Your task to perform on an android device: Check the settings for the Google Photos app Image 0: 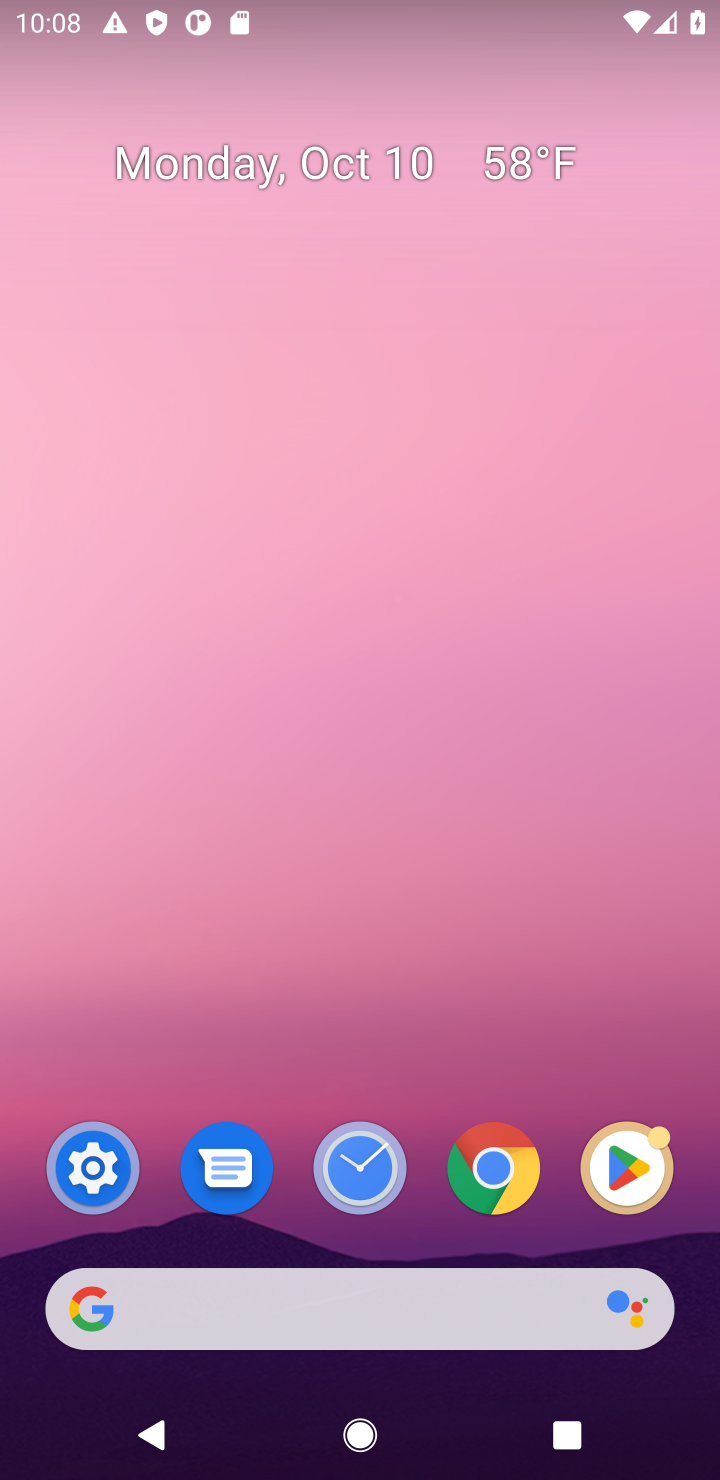
Step 0: drag from (359, 1067) to (474, 155)
Your task to perform on an android device: Check the settings for the Google Photos app Image 1: 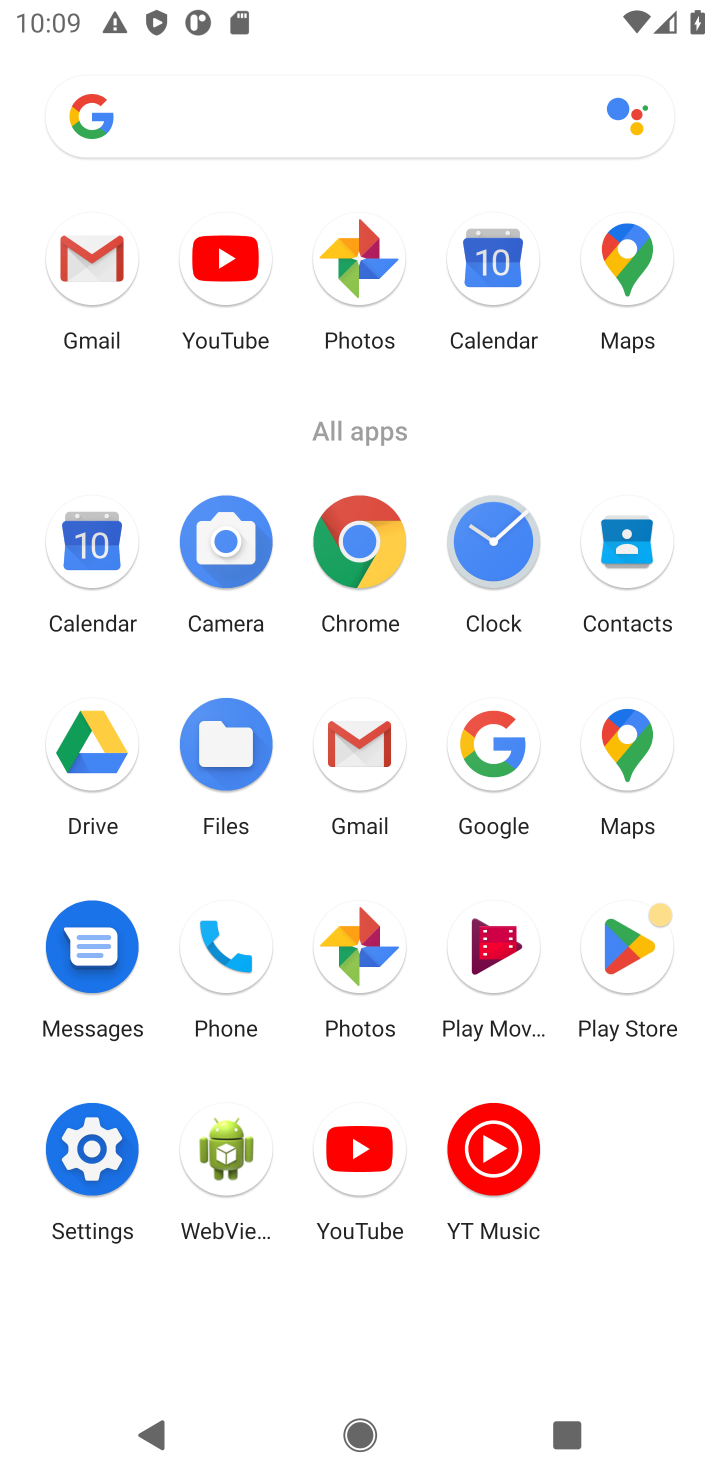
Step 1: click (344, 281)
Your task to perform on an android device: Check the settings for the Google Photos app Image 2: 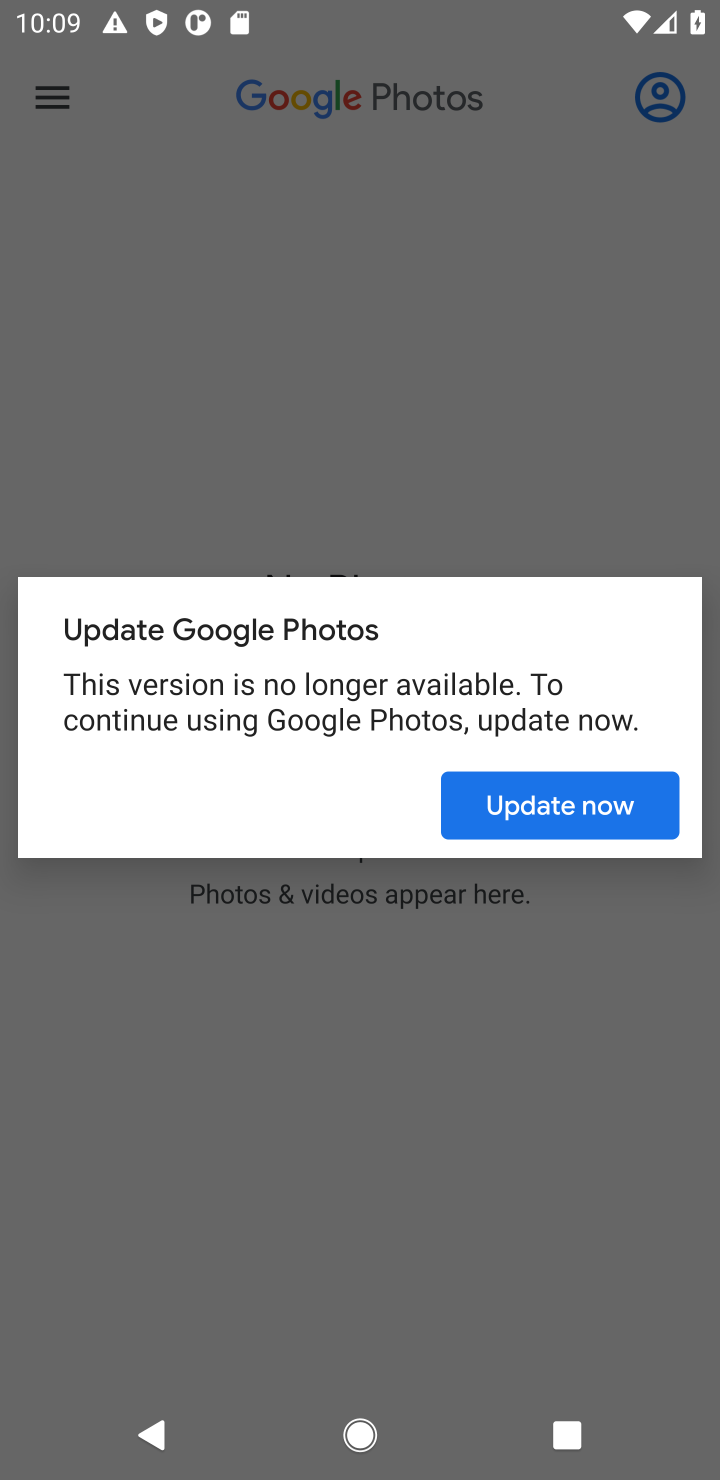
Step 2: click (269, 460)
Your task to perform on an android device: Check the settings for the Google Photos app Image 3: 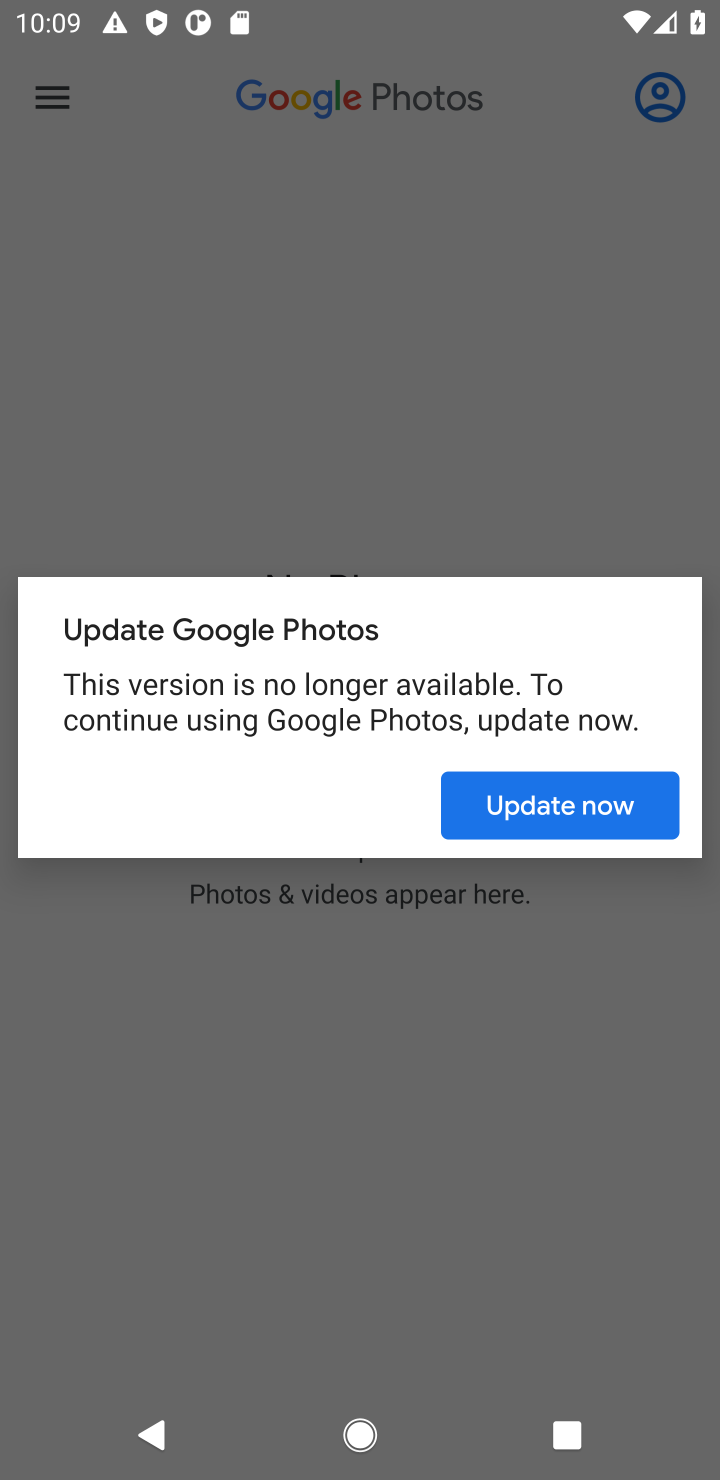
Step 3: click (616, 783)
Your task to perform on an android device: Check the settings for the Google Photos app Image 4: 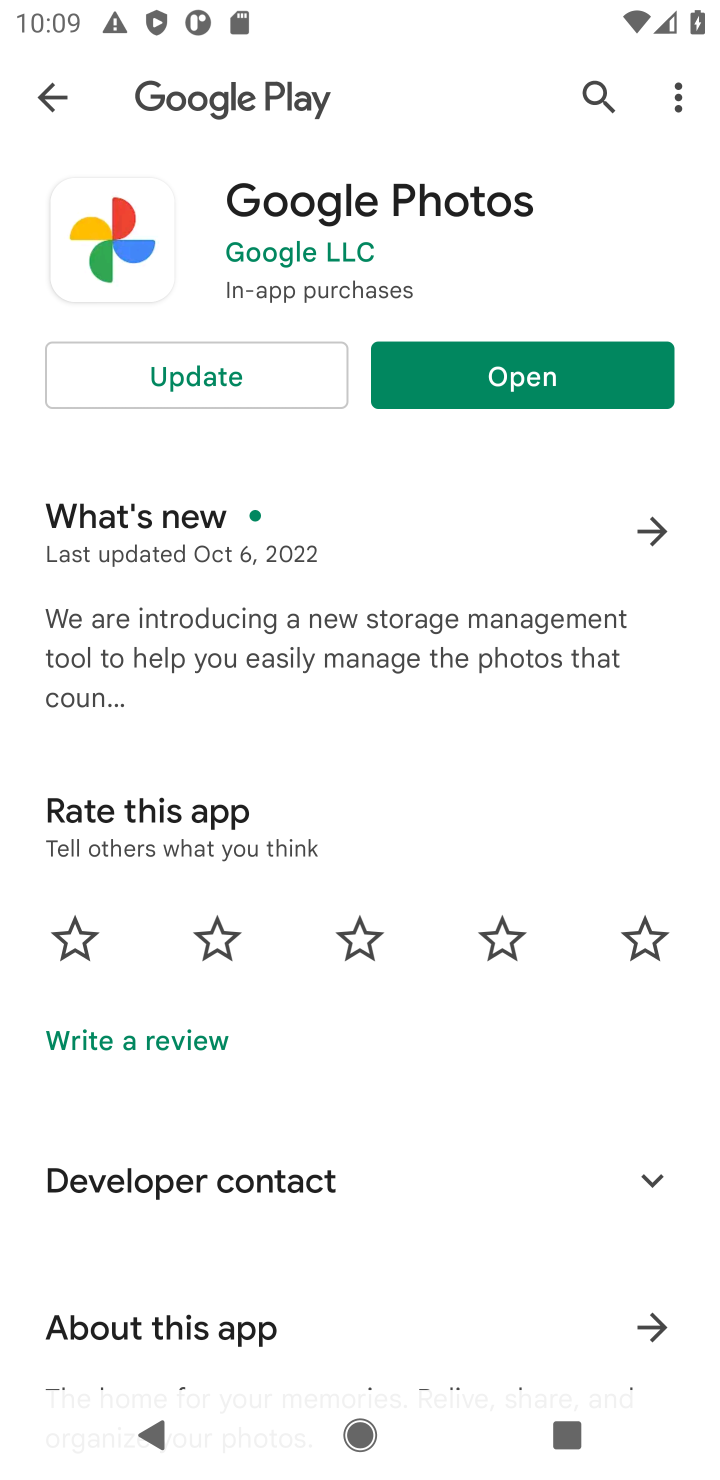
Step 4: click (590, 356)
Your task to perform on an android device: Check the settings for the Google Photos app Image 5: 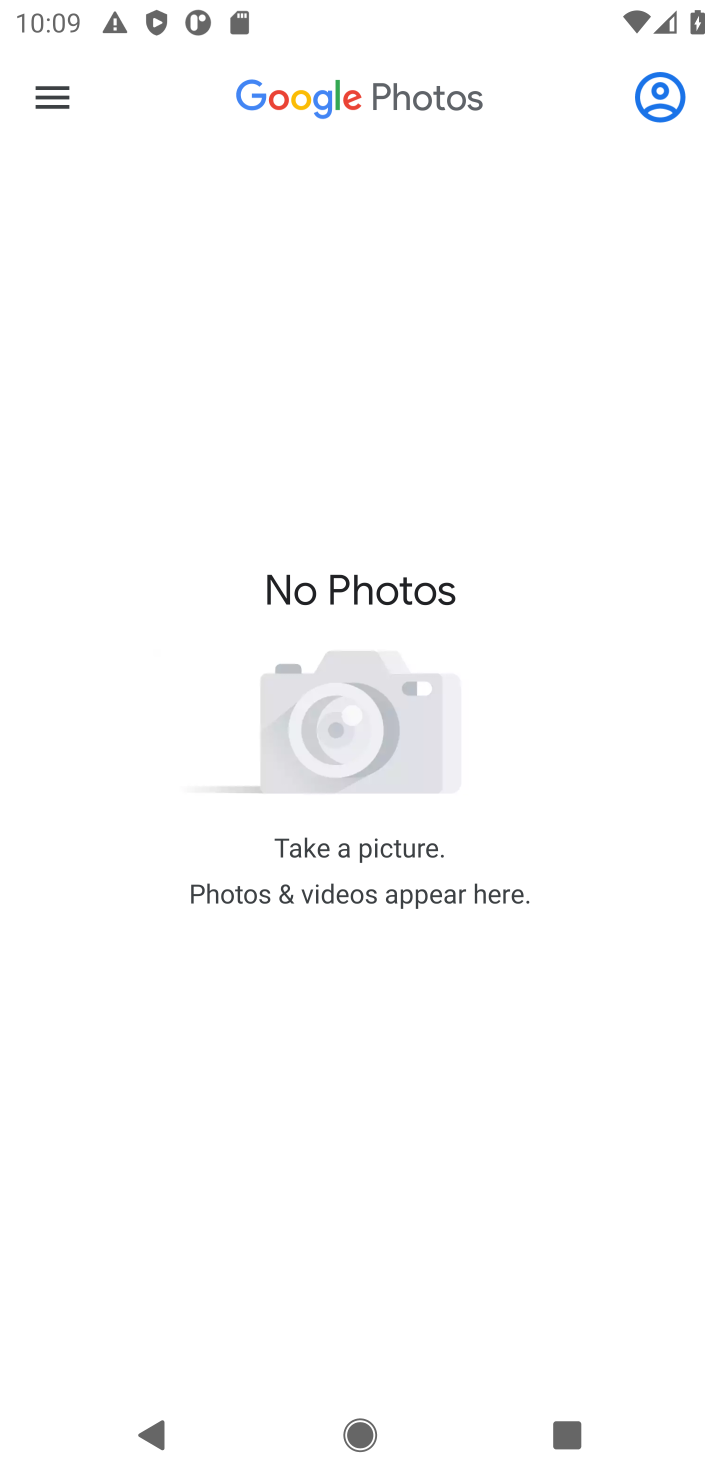
Step 5: click (40, 101)
Your task to perform on an android device: Check the settings for the Google Photos app Image 6: 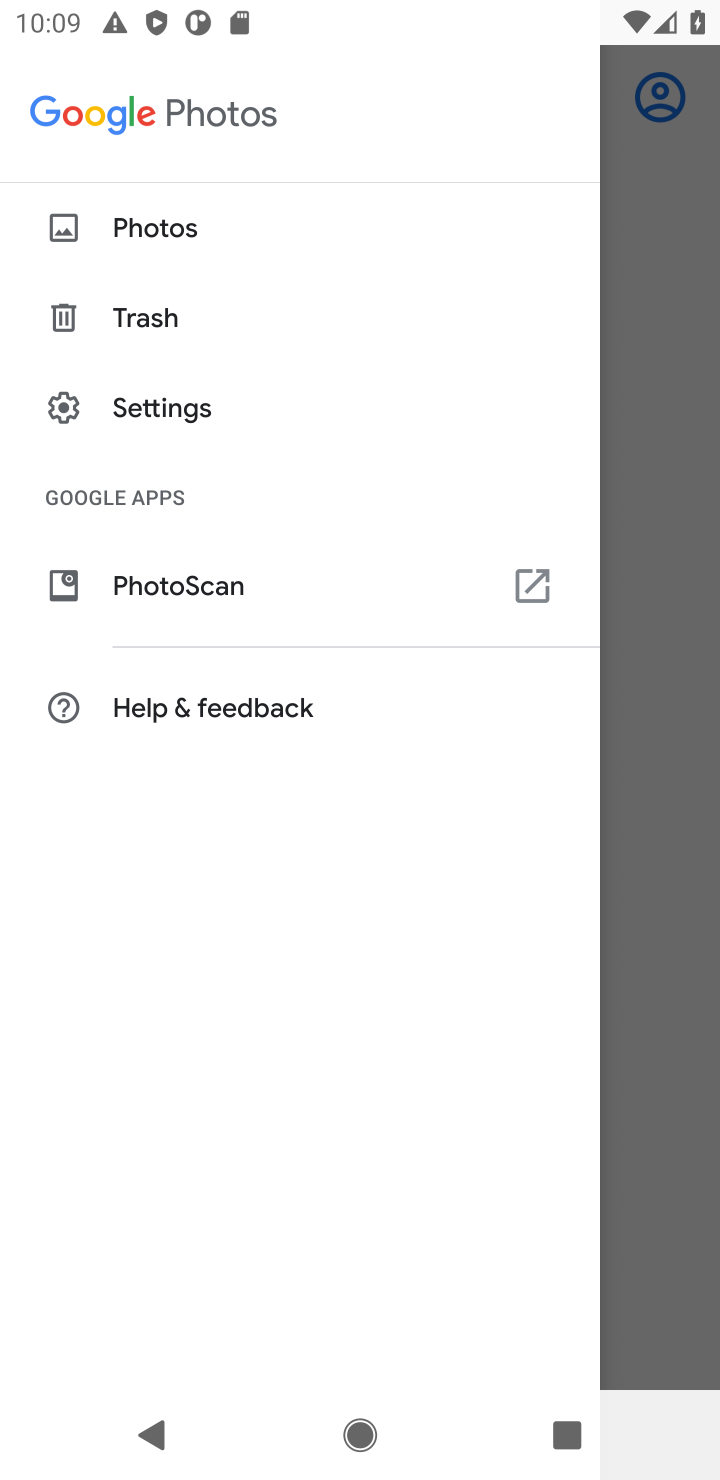
Step 6: click (199, 407)
Your task to perform on an android device: Check the settings for the Google Photos app Image 7: 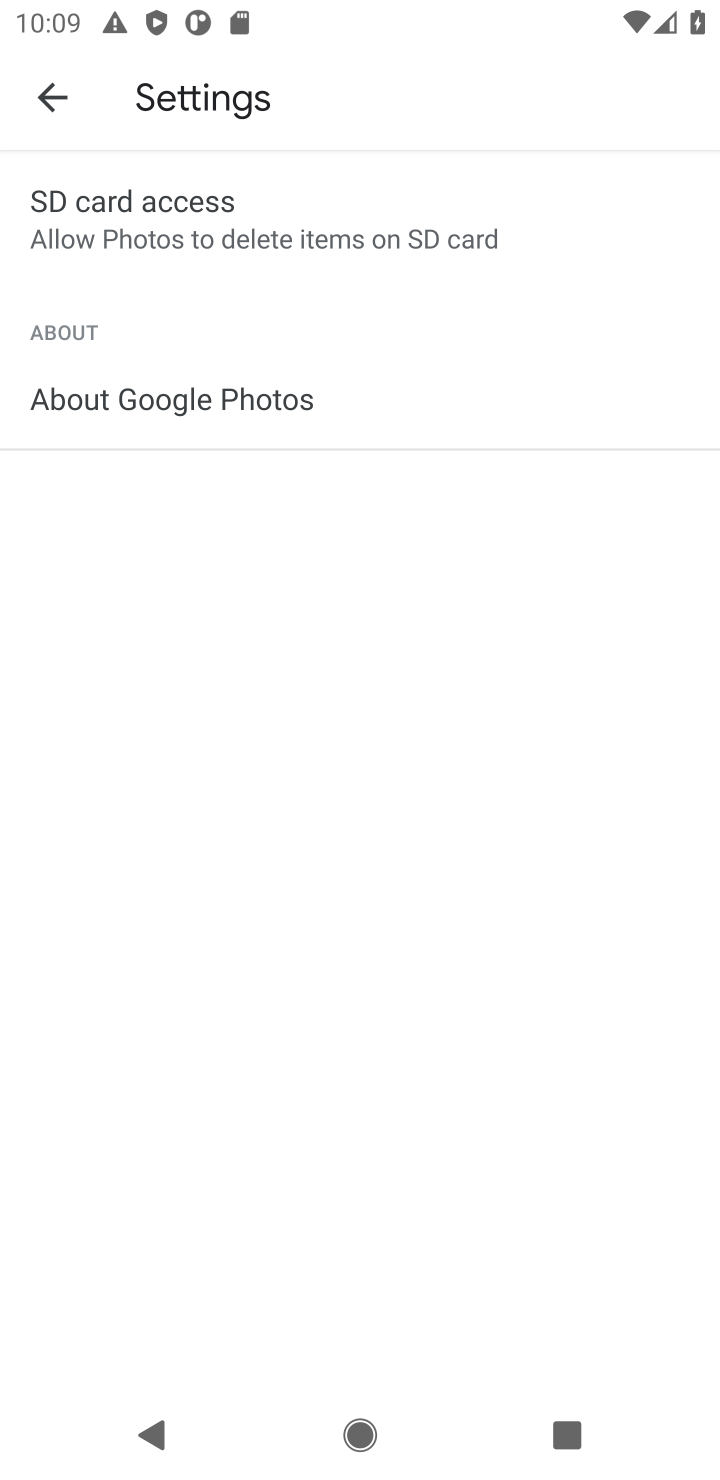
Step 7: click (50, 91)
Your task to perform on an android device: Check the settings for the Google Photos app Image 8: 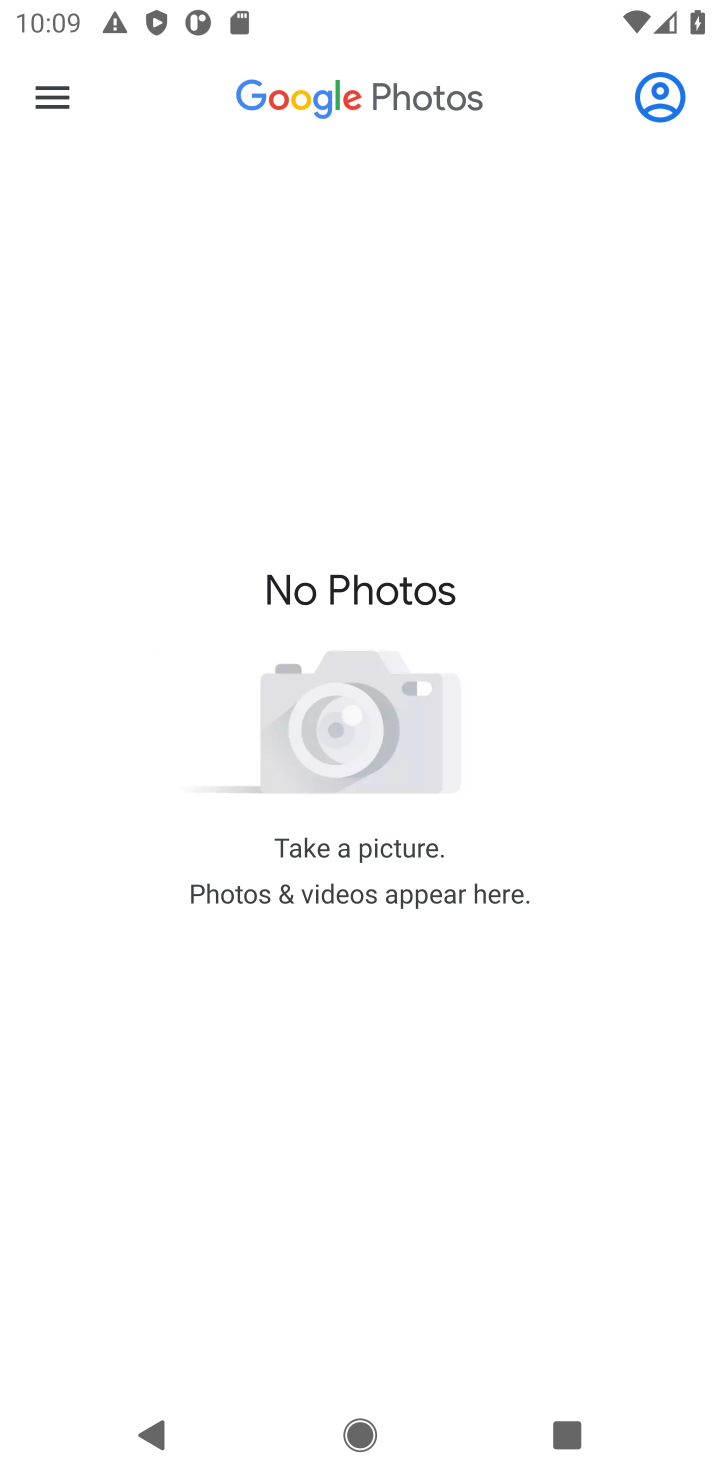
Step 8: click (47, 72)
Your task to perform on an android device: Check the settings for the Google Photos app Image 9: 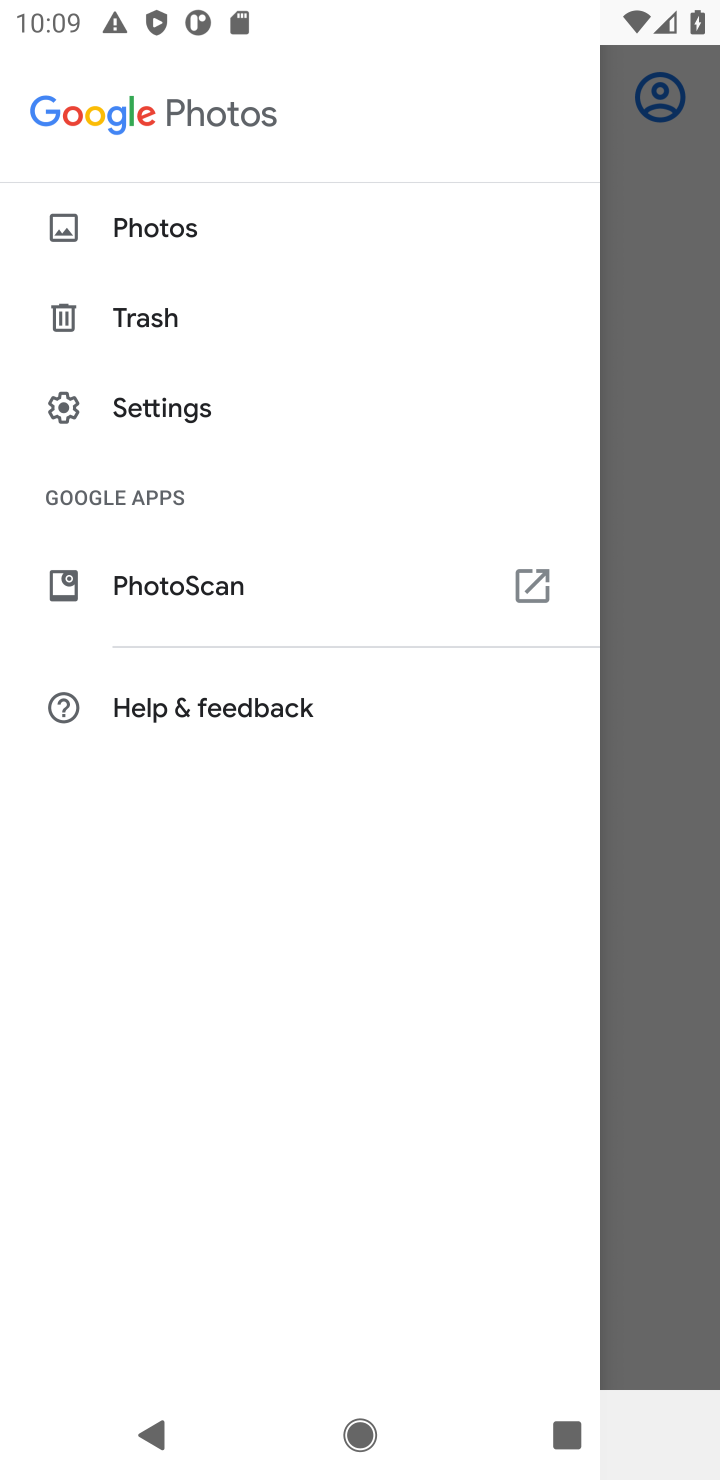
Step 9: click (154, 415)
Your task to perform on an android device: Check the settings for the Google Photos app Image 10: 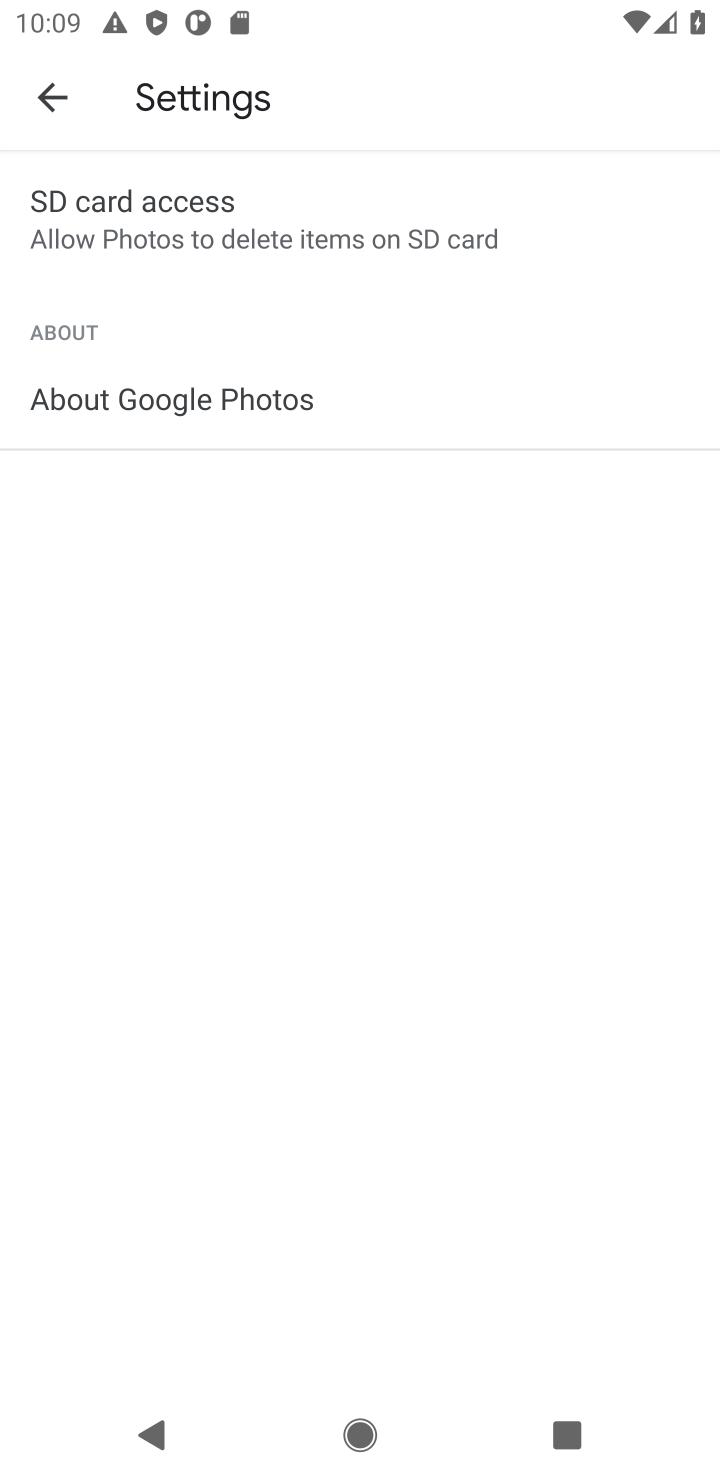
Step 10: task complete